Your task to perform on an android device: visit the assistant section in the google photos Image 0: 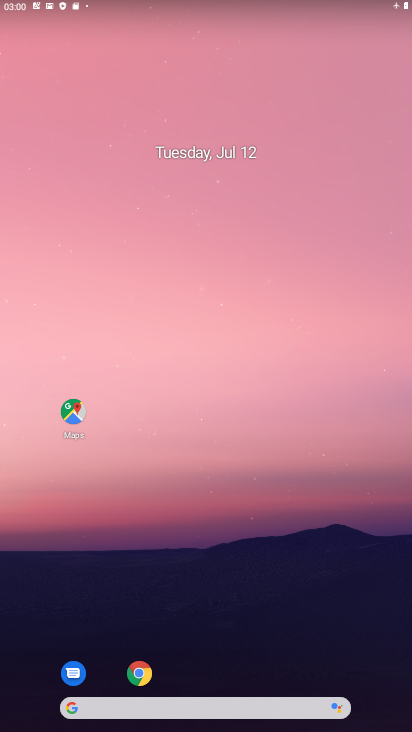
Step 0: press home button
Your task to perform on an android device: visit the assistant section in the google photos Image 1: 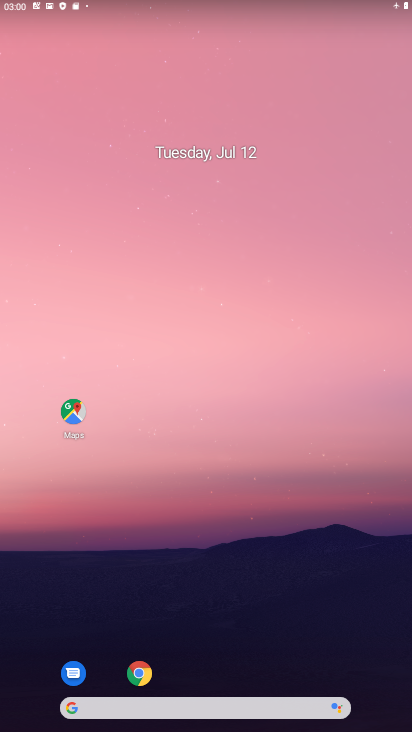
Step 1: press home button
Your task to perform on an android device: visit the assistant section in the google photos Image 2: 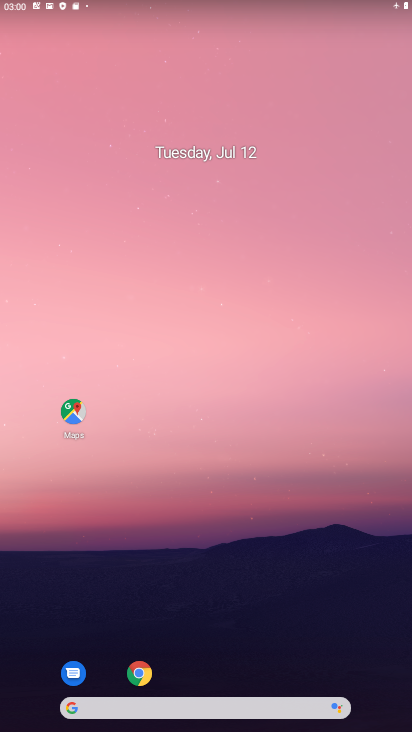
Step 2: drag from (209, 658) to (192, 142)
Your task to perform on an android device: visit the assistant section in the google photos Image 3: 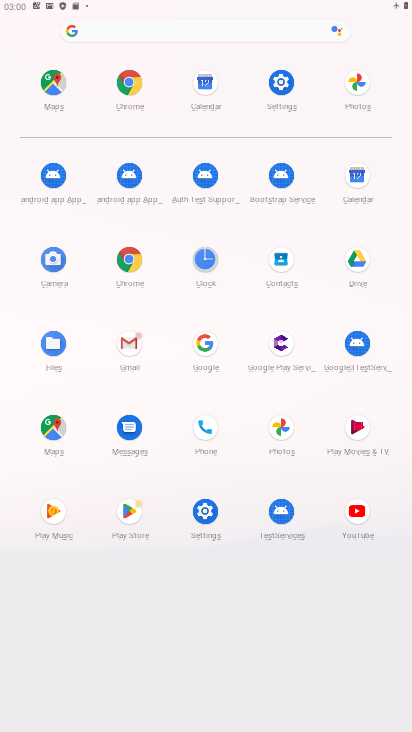
Step 3: click (280, 418)
Your task to perform on an android device: visit the assistant section in the google photos Image 4: 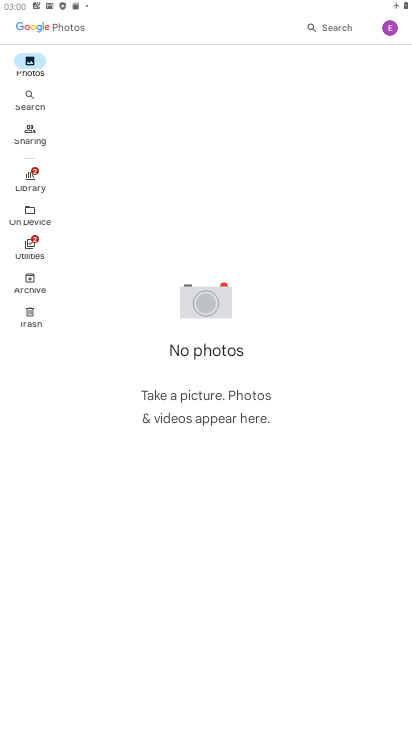
Step 4: task complete